Your task to perform on an android device: Open Youtube and go to "Your channel" Image 0: 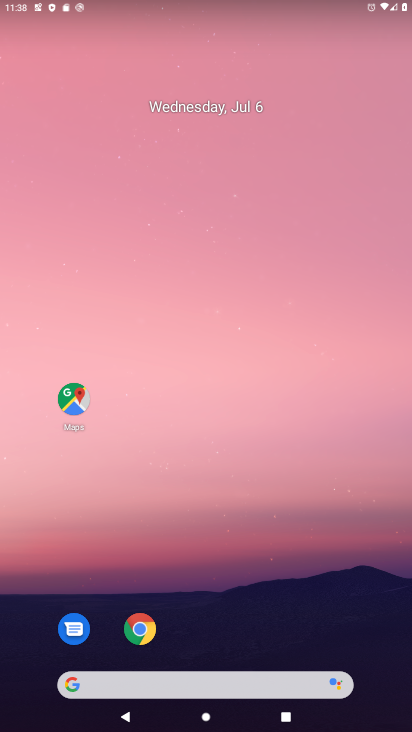
Step 0: drag from (241, 610) to (280, 129)
Your task to perform on an android device: Open Youtube and go to "Your channel" Image 1: 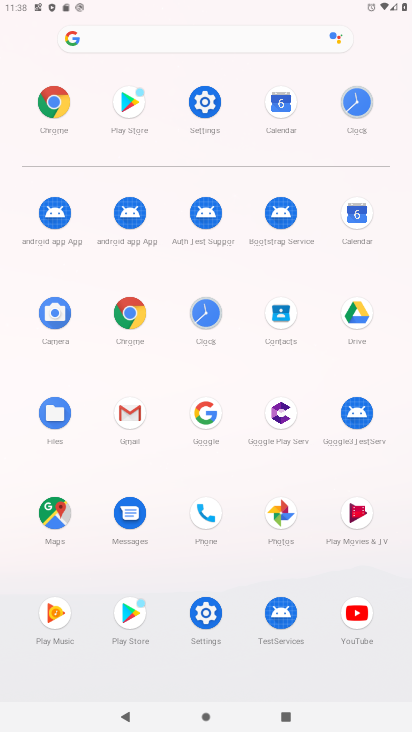
Step 1: click (358, 613)
Your task to perform on an android device: Open Youtube and go to "Your channel" Image 2: 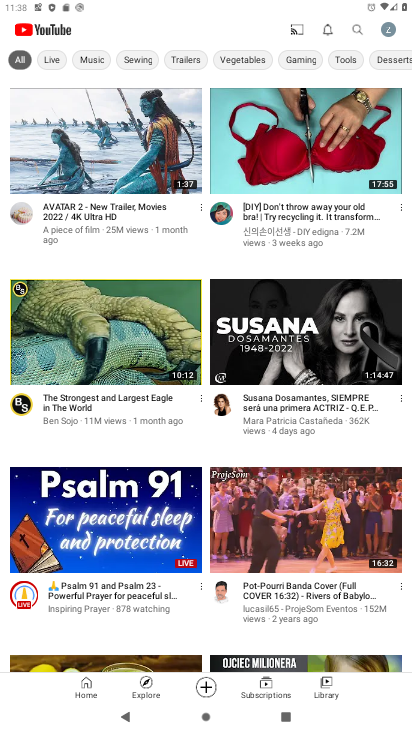
Step 2: click (388, 28)
Your task to perform on an android device: Open Youtube and go to "Your channel" Image 3: 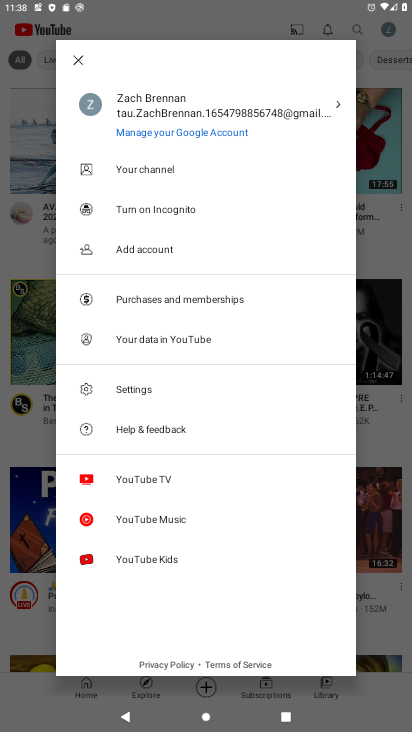
Step 3: click (165, 167)
Your task to perform on an android device: Open Youtube and go to "Your channel" Image 4: 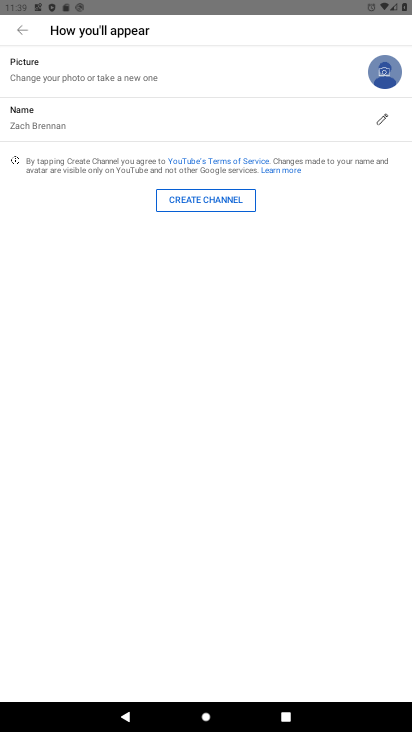
Step 4: task complete